Your task to perform on an android device: Go to accessibility settings Image 0: 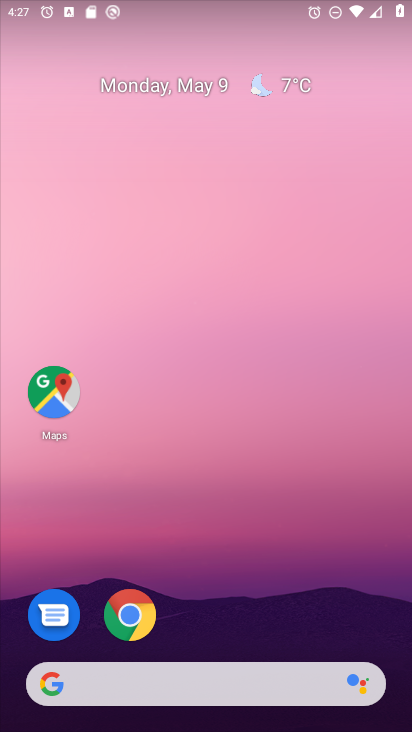
Step 0: drag from (384, 635) to (347, 110)
Your task to perform on an android device: Go to accessibility settings Image 1: 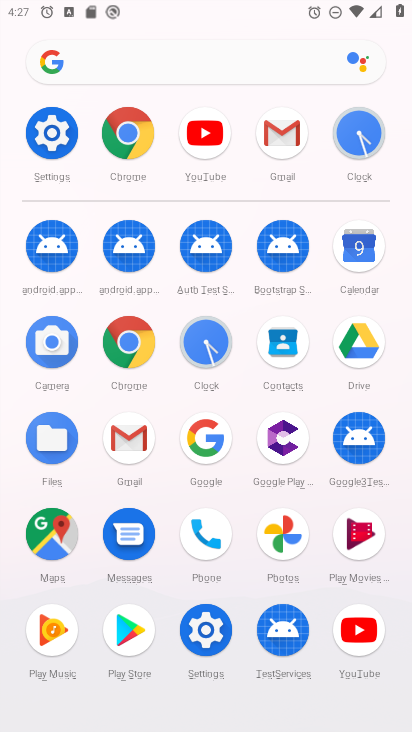
Step 1: click (204, 632)
Your task to perform on an android device: Go to accessibility settings Image 2: 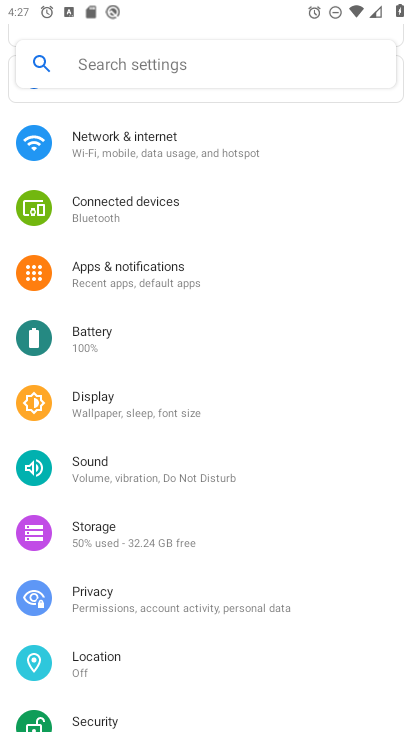
Step 2: drag from (226, 658) to (257, 312)
Your task to perform on an android device: Go to accessibility settings Image 3: 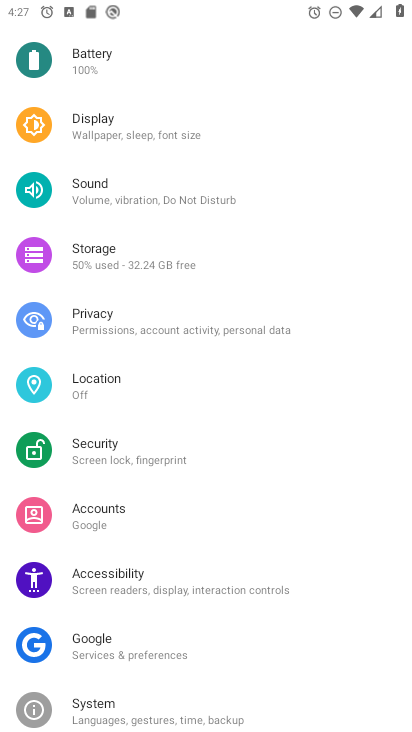
Step 3: click (87, 580)
Your task to perform on an android device: Go to accessibility settings Image 4: 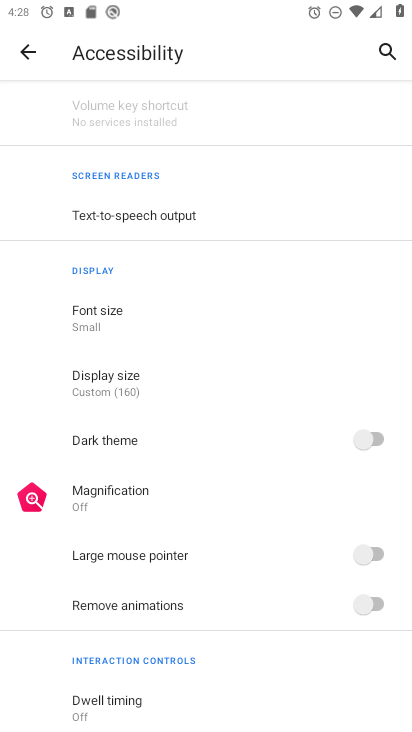
Step 4: task complete